Your task to perform on an android device: turn smart compose on in the gmail app Image 0: 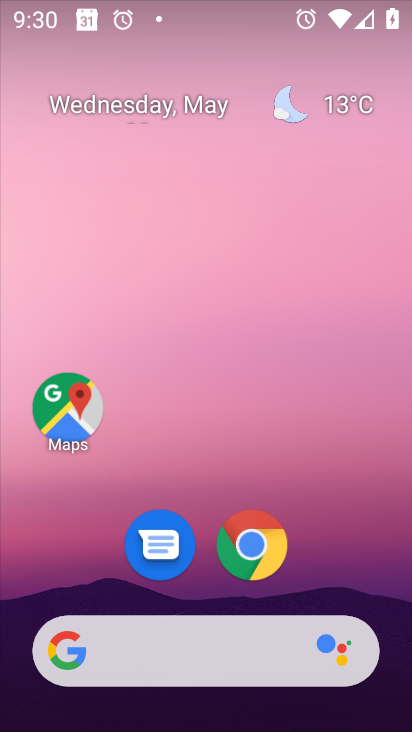
Step 0: drag from (342, 568) to (248, 17)
Your task to perform on an android device: turn smart compose on in the gmail app Image 1: 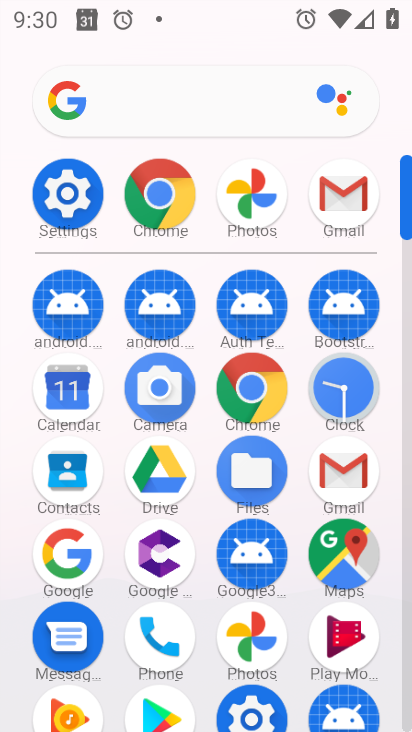
Step 1: drag from (11, 523) to (12, 193)
Your task to perform on an android device: turn smart compose on in the gmail app Image 2: 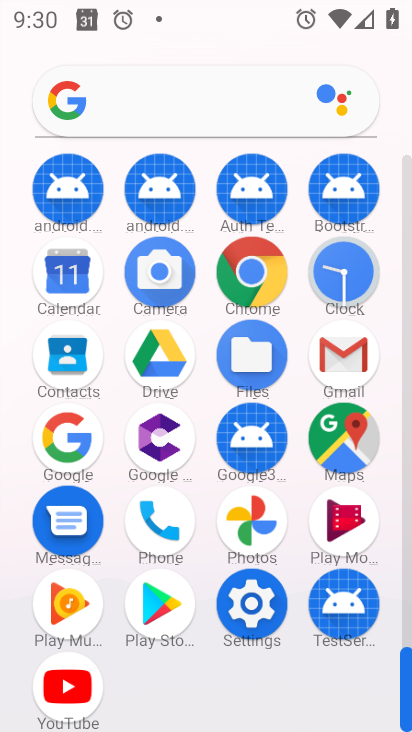
Step 2: click (341, 350)
Your task to perform on an android device: turn smart compose on in the gmail app Image 3: 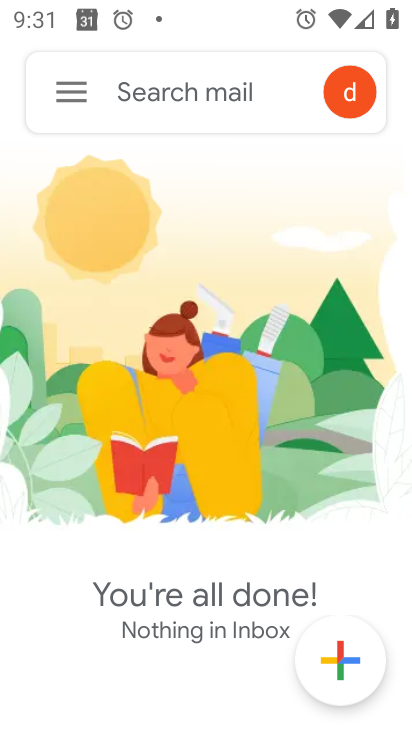
Step 3: click (62, 91)
Your task to perform on an android device: turn smart compose on in the gmail app Image 4: 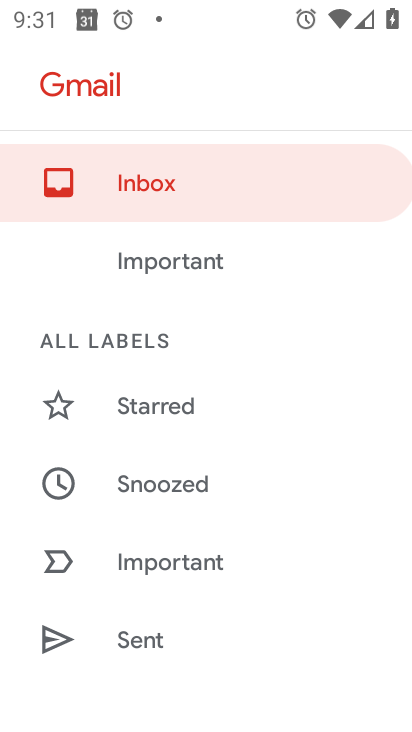
Step 4: drag from (209, 612) to (273, 141)
Your task to perform on an android device: turn smart compose on in the gmail app Image 5: 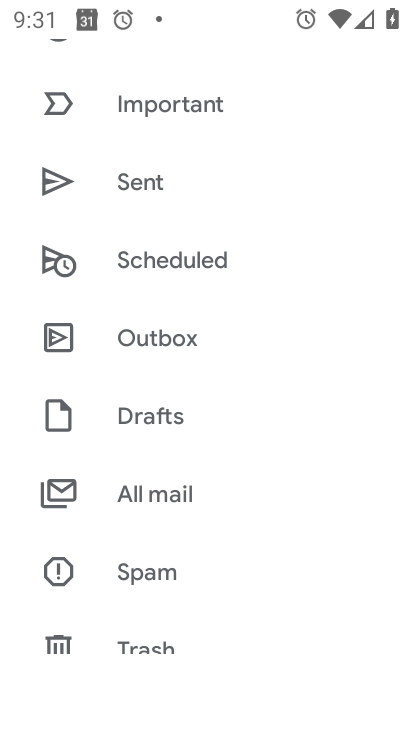
Step 5: drag from (205, 585) to (242, 61)
Your task to perform on an android device: turn smart compose on in the gmail app Image 6: 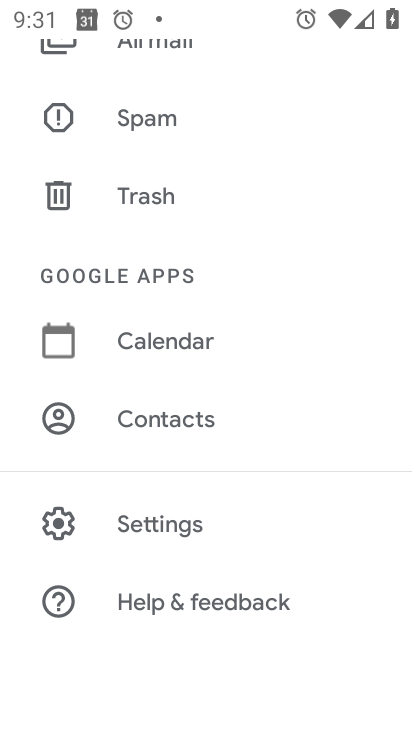
Step 6: click (153, 526)
Your task to perform on an android device: turn smart compose on in the gmail app Image 7: 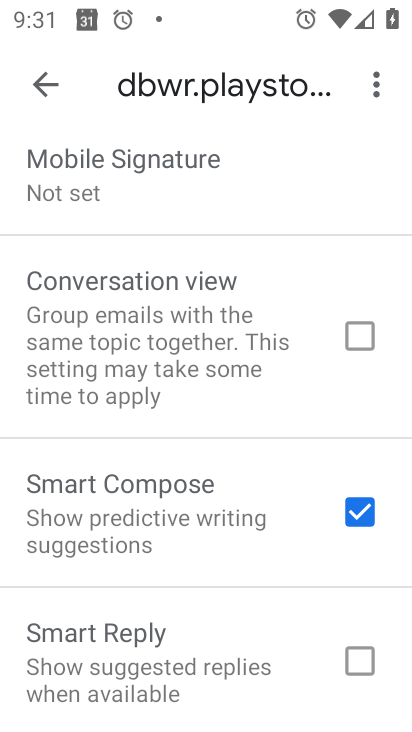
Step 7: click (353, 659)
Your task to perform on an android device: turn smart compose on in the gmail app Image 8: 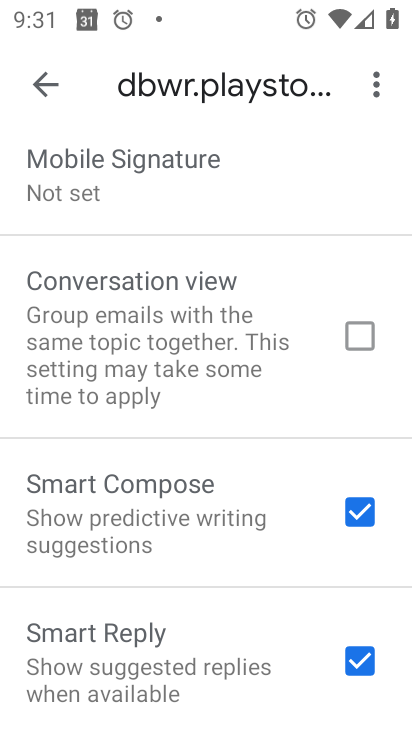
Step 8: task complete